Your task to perform on an android device: What's the weather today? Image 0: 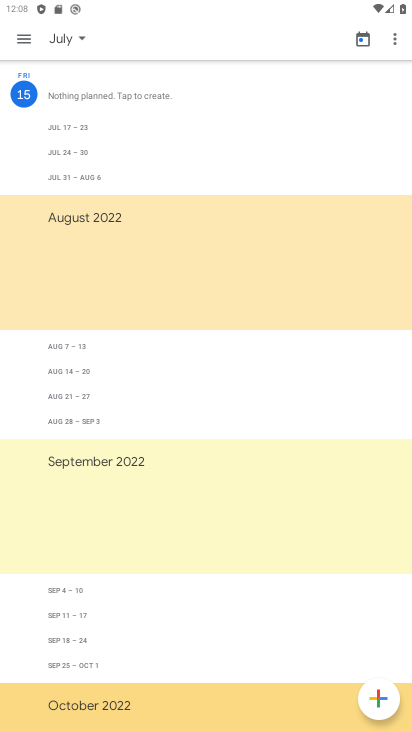
Step 0: press home button
Your task to perform on an android device: What's the weather today? Image 1: 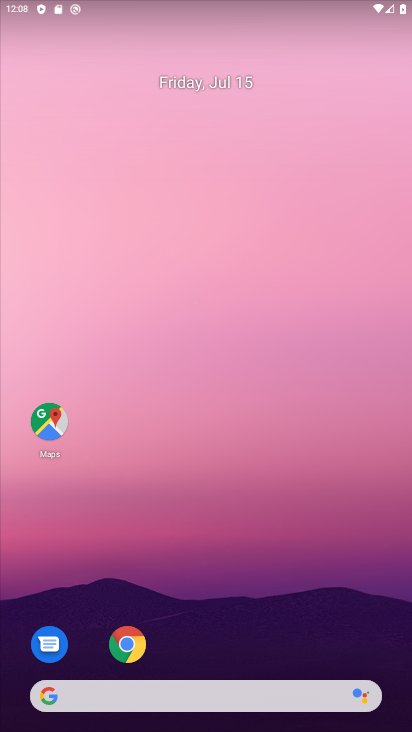
Step 1: drag from (238, 724) to (226, 303)
Your task to perform on an android device: What's the weather today? Image 2: 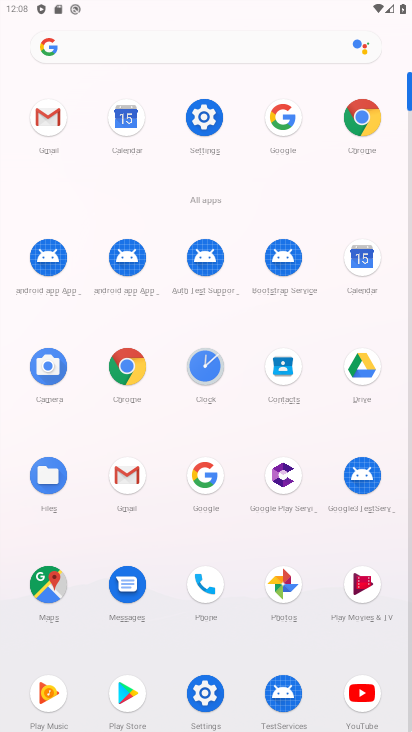
Step 2: click (214, 471)
Your task to perform on an android device: What's the weather today? Image 3: 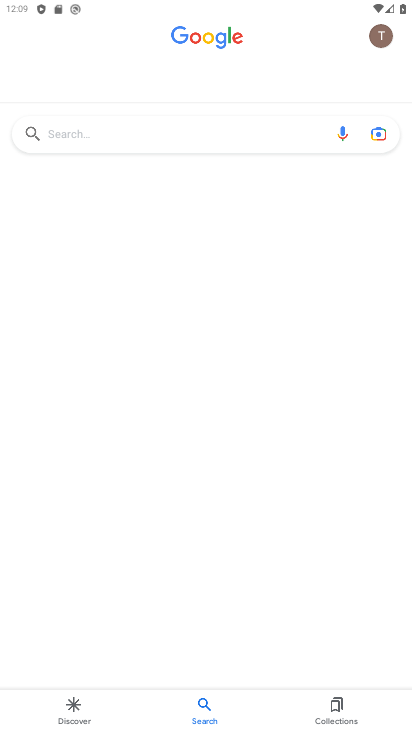
Step 3: click (222, 130)
Your task to perform on an android device: What's the weather today? Image 4: 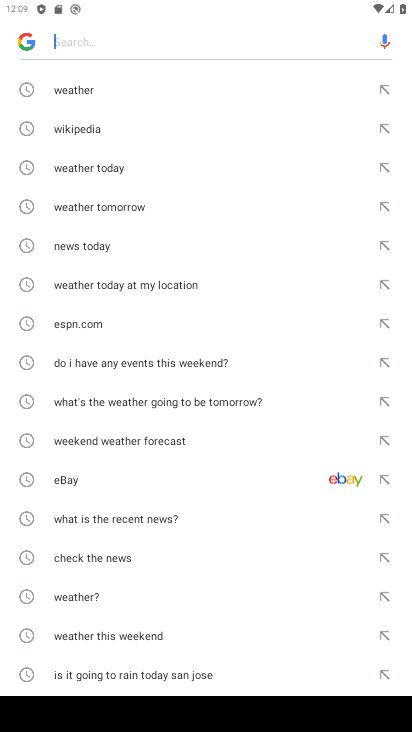
Step 4: click (78, 91)
Your task to perform on an android device: What's the weather today? Image 5: 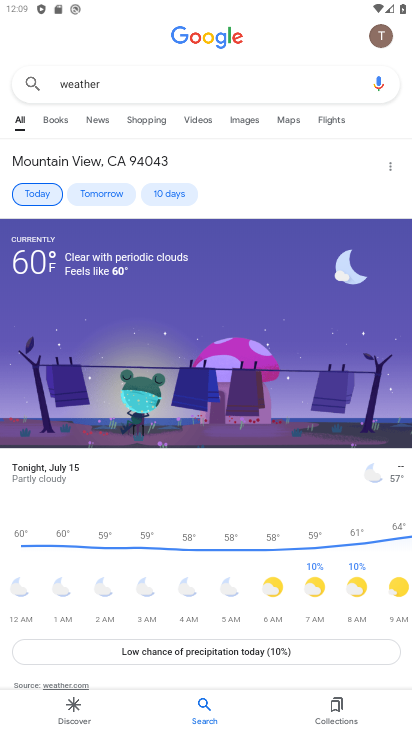
Step 5: click (39, 190)
Your task to perform on an android device: What's the weather today? Image 6: 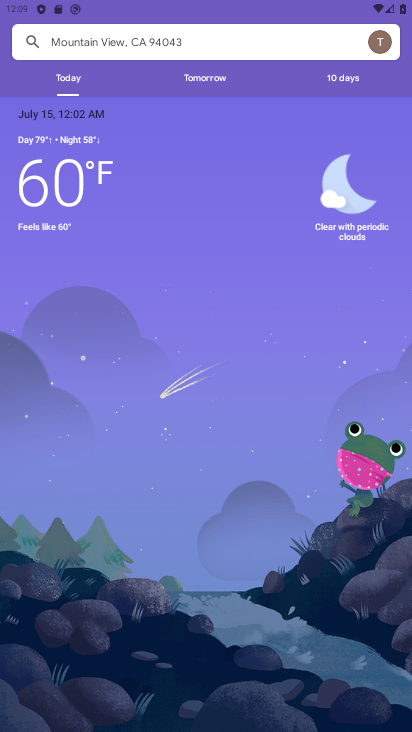
Step 6: task complete